Your task to perform on an android device: Go to accessibility settings Image 0: 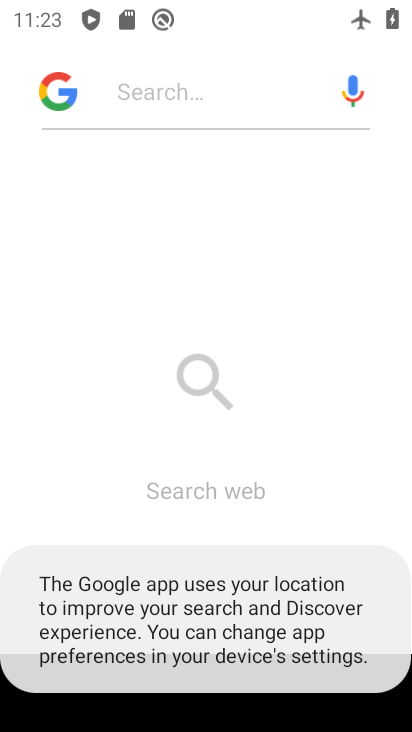
Step 0: press home button
Your task to perform on an android device: Go to accessibility settings Image 1: 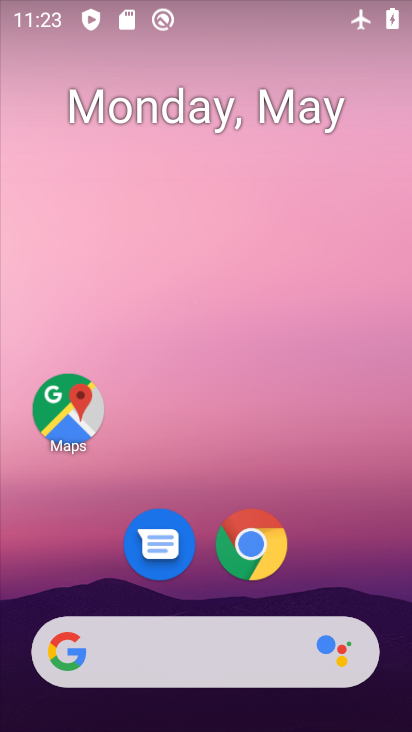
Step 1: drag from (399, 523) to (390, 77)
Your task to perform on an android device: Go to accessibility settings Image 2: 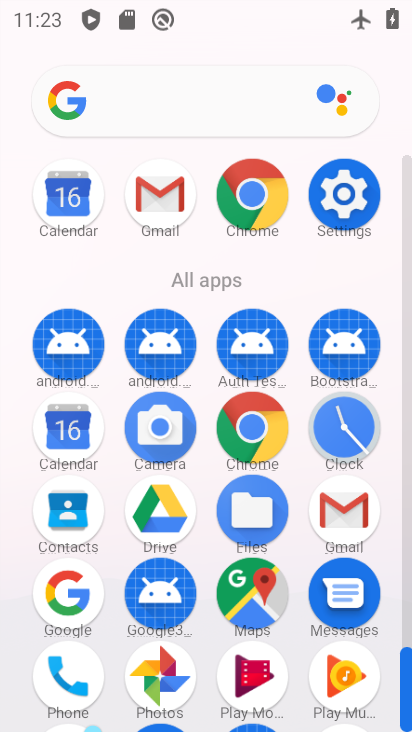
Step 2: click (339, 200)
Your task to perform on an android device: Go to accessibility settings Image 3: 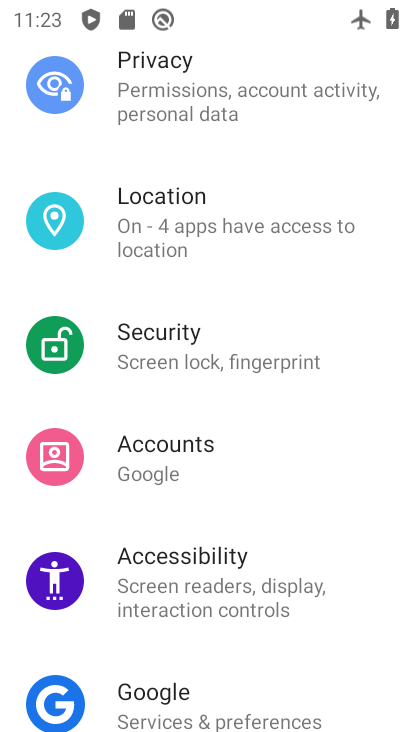
Step 3: click (278, 566)
Your task to perform on an android device: Go to accessibility settings Image 4: 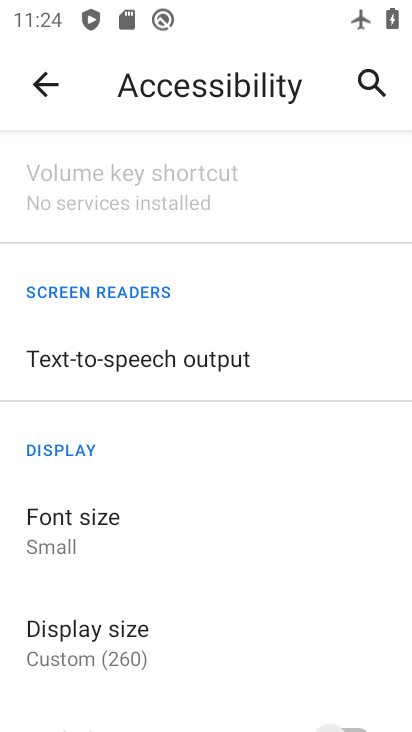
Step 4: task complete